Your task to perform on an android device: manage bookmarks in the chrome app Image 0: 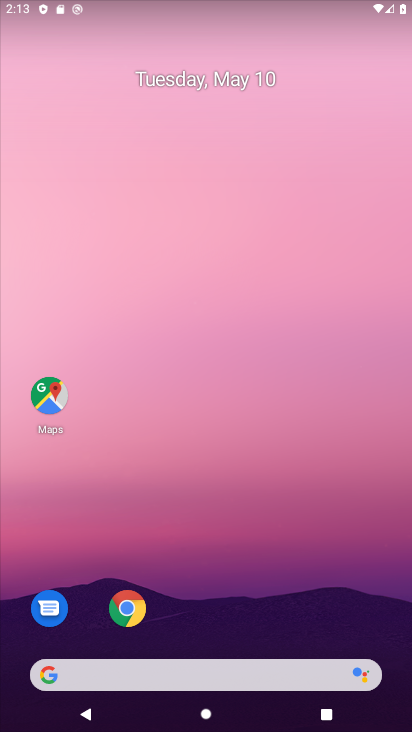
Step 0: click (127, 607)
Your task to perform on an android device: manage bookmarks in the chrome app Image 1: 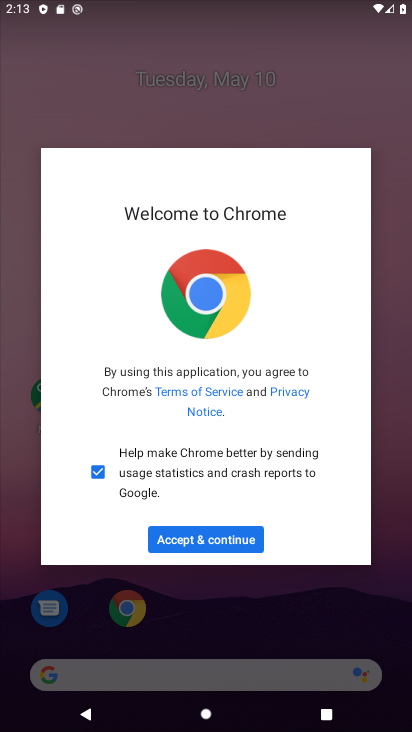
Step 1: click (195, 533)
Your task to perform on an android device: manage bookmarks in the chrome app Image 2: 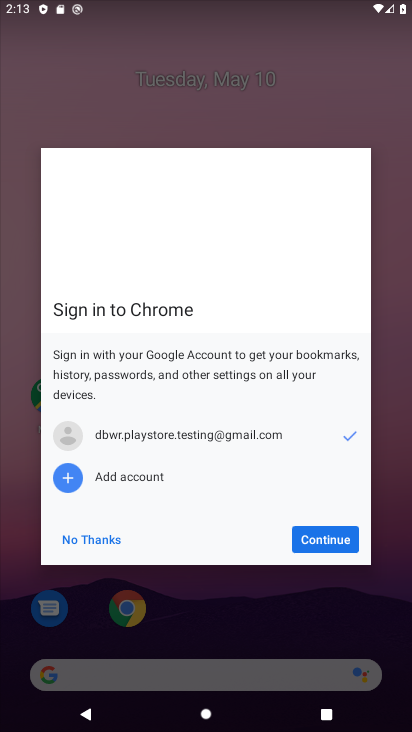
Step 2: click (326, 538)
Your task to perform on an android device: manage bookmarks in the chrome app Image 3: 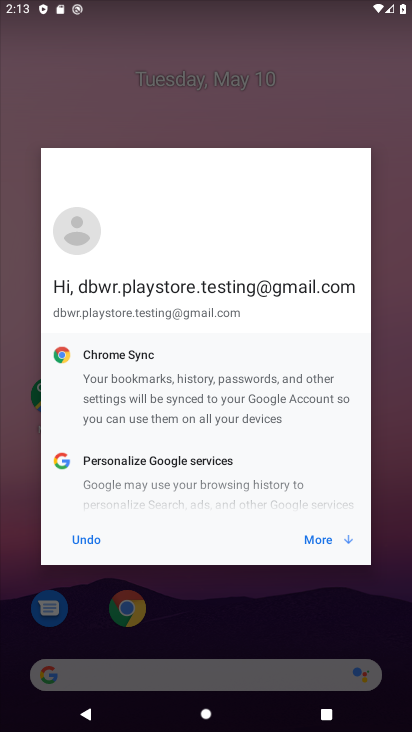
Step 3: click (322, 539)
Your task to perform on an android device: manage bookmarks in the chrome app Image 4: 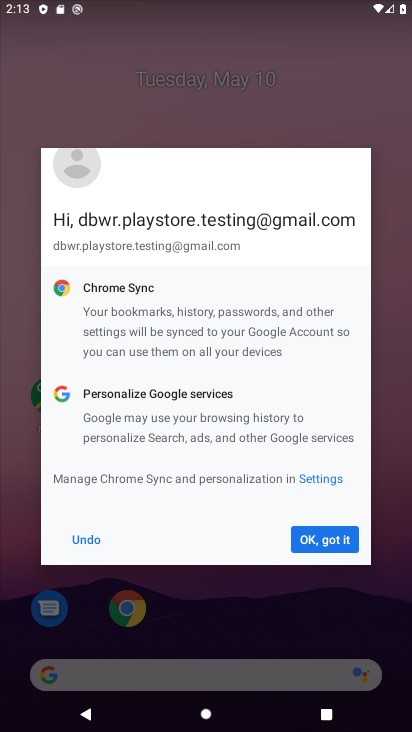
Step 4: click (322, 539)
Your task to perform on an android device: manage bookmarks in the chrome app Image 5: 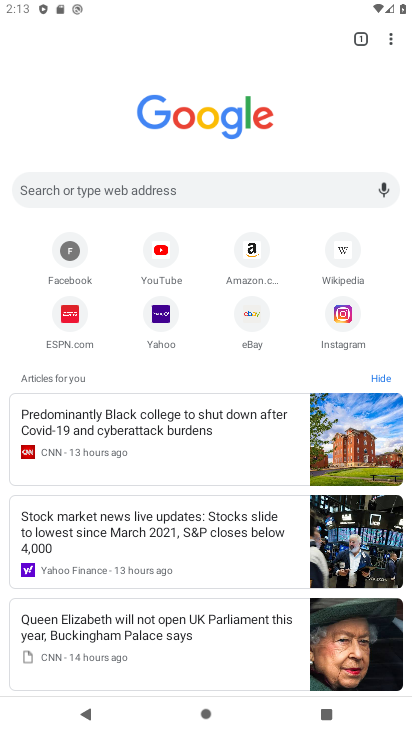
Step 5: click (388, 41)
Your task to perform on an android device: manage bookmarks in the chrome app Image 6: 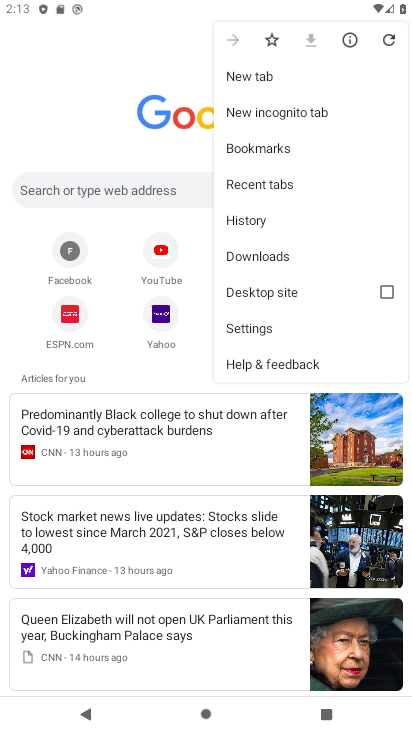
Step 6: click (249, 145)
Your task to perform on an android device: manage bookmarks in the chrome app Image 7: 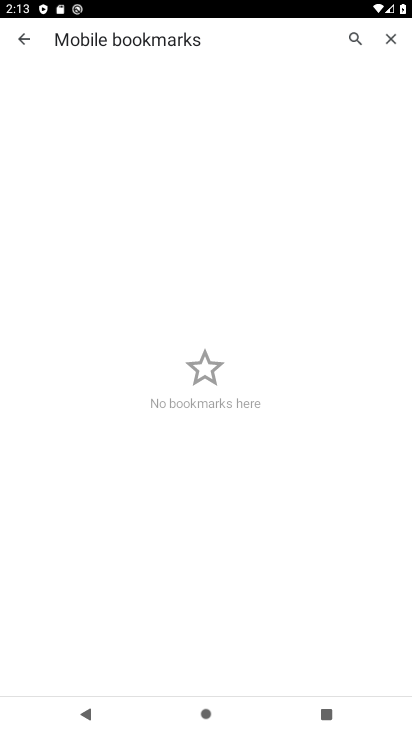
Step 7: task complete